Your task to perform on an android device: move a message to another label in the gmail app Image 0: 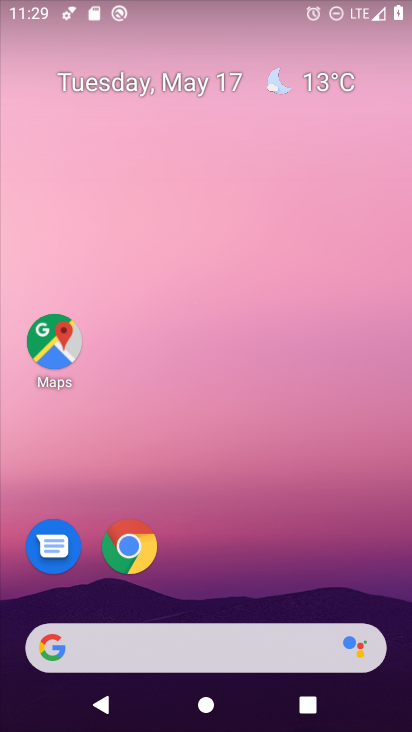
Step 0: drag from (327, 587) to (381, 4)
Your task to perform on an android device: move a message to another label in the gmail app Image 1: 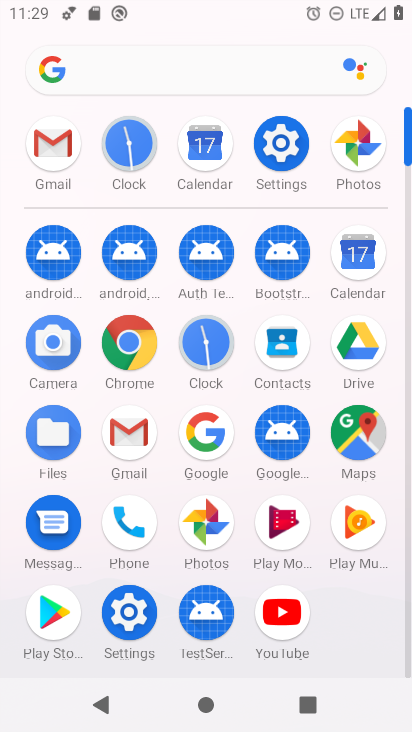
Step 1: click (50, 158)
Your task to perform on an android device: move a message to another label in the gmail app Image 2: 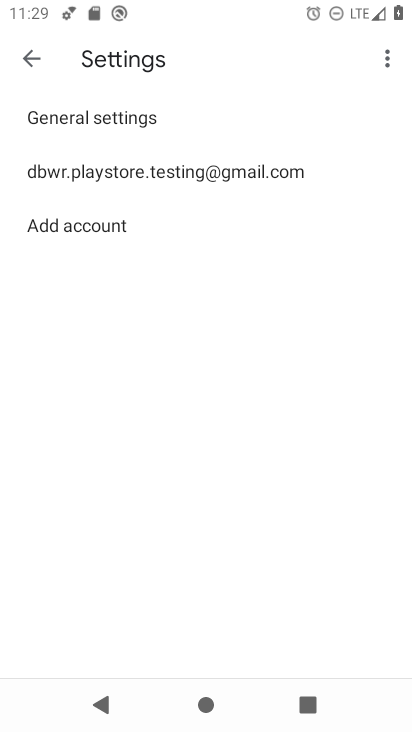
Step 2: click (31, 63)
Your task to perform on an android device: move a message to another label in the gmail app Image 3: 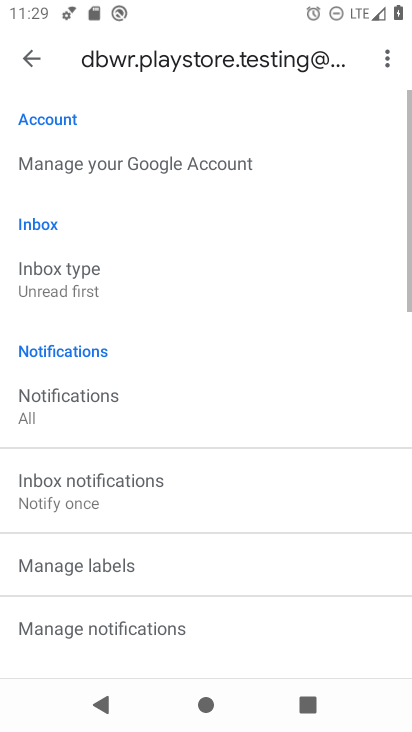
Step 3: click (31, 57)
Your task to perform on an android device: move a message to another label in the gmail app Image 4: 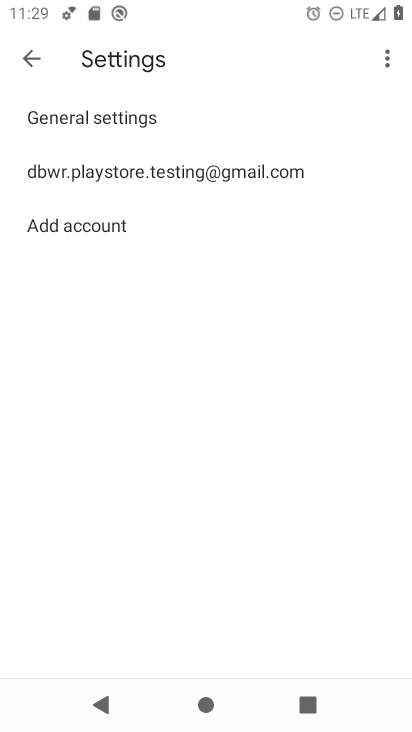
Step 4: click (29, 63)
Your task to perform on an android device: move a message to another label in the gmail app Image 5: 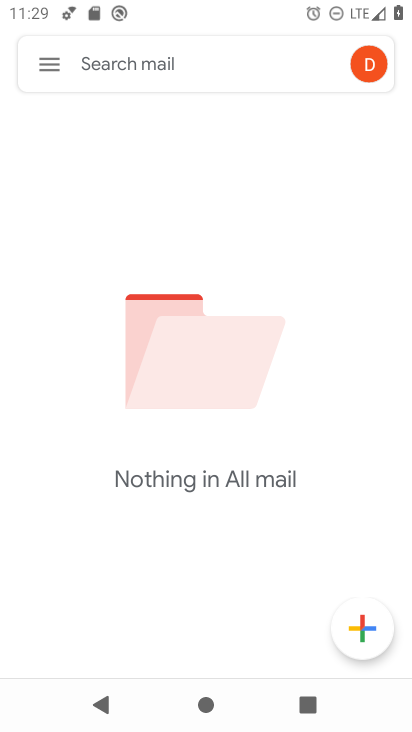
Step 5: task complete